Your task to perform on an android device: set an alarm Image 0: 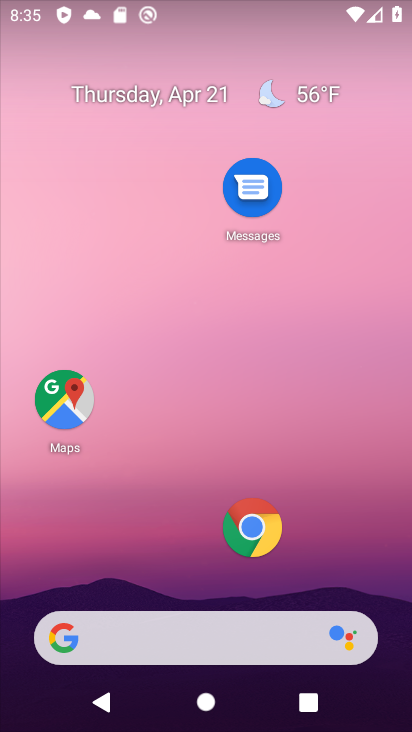
Step 0: drag from (201, 620) to (344, 115)
Your task to perform on an android device: set an alarm Image 1: 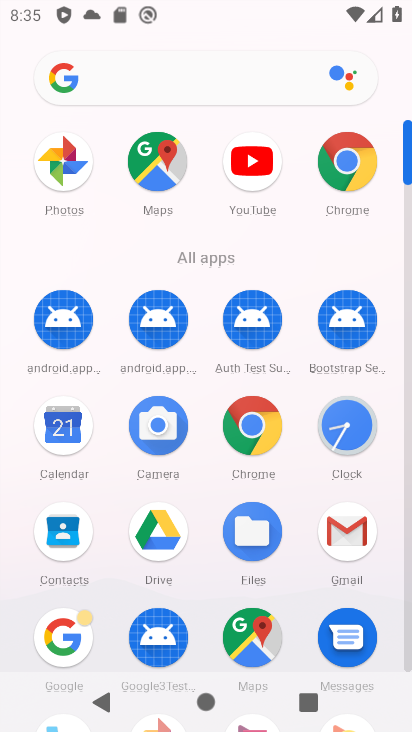
Step 1: click (336, 418)
Your task to perform on an android device: set an alarm Image 2: 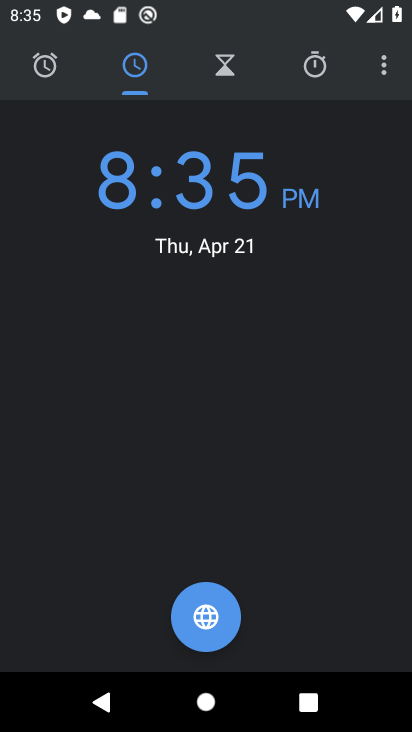
Step 2: click (43, 58)
Your task to perform on an android device: set an alarm Image 3: 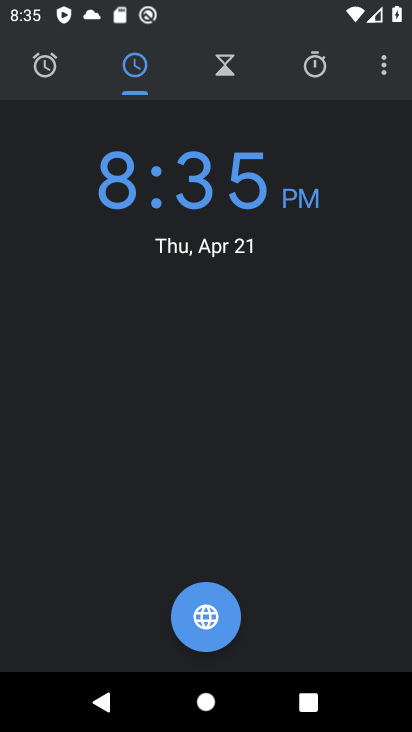
Step 3: click (44, 77)
Your task to perform on an android device: set an alarm Image 4: 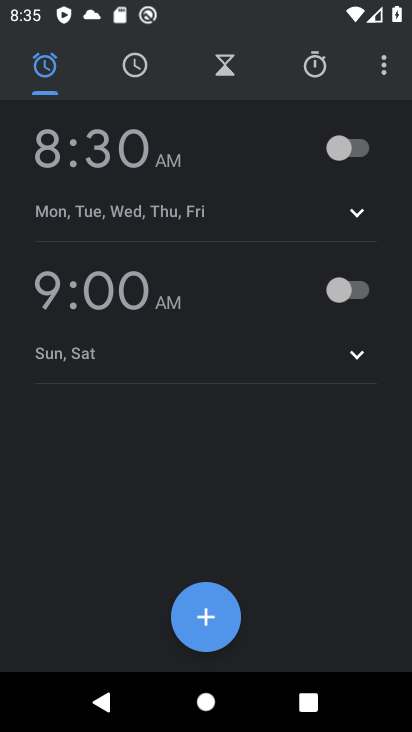
Step 4: click (55, 152)
Your task to perform on an android device: set an alarm Image 5: 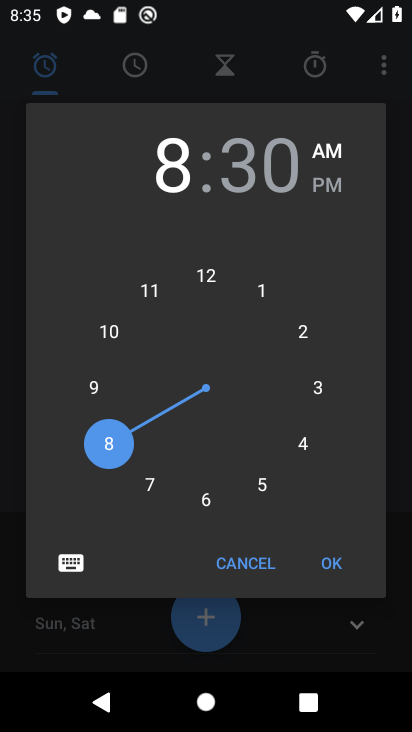
Step 5: click (152, 480)
Your task to perform on an android device: set an alarm Image 6: 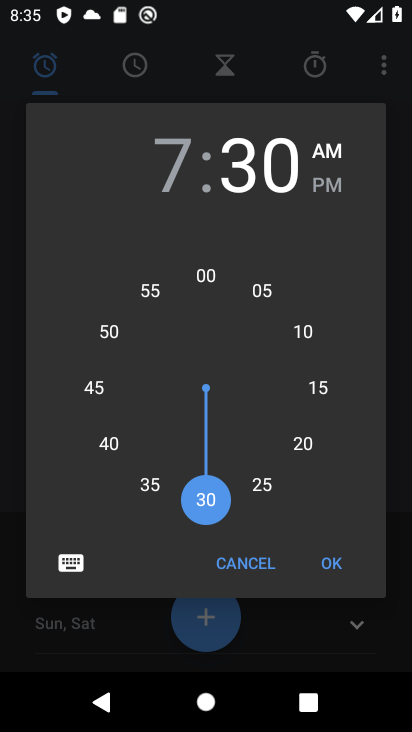
Step 6: click (332, 562)
Your task to perform on an android device: set an alarm Image 7: 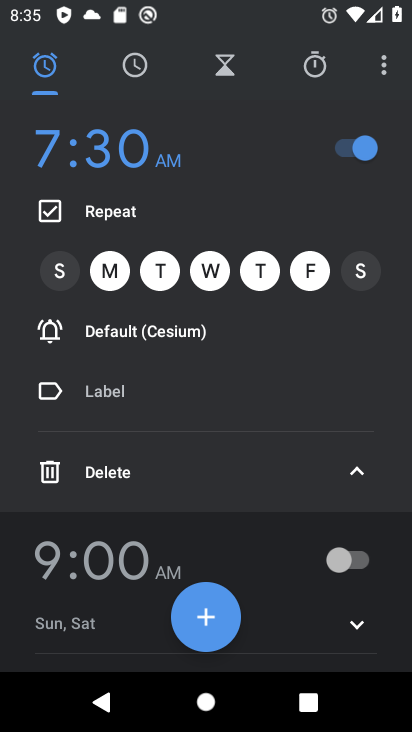
Step 7: task complete